Your task to perform on an android device: turn off notifications in google photos Image 0: 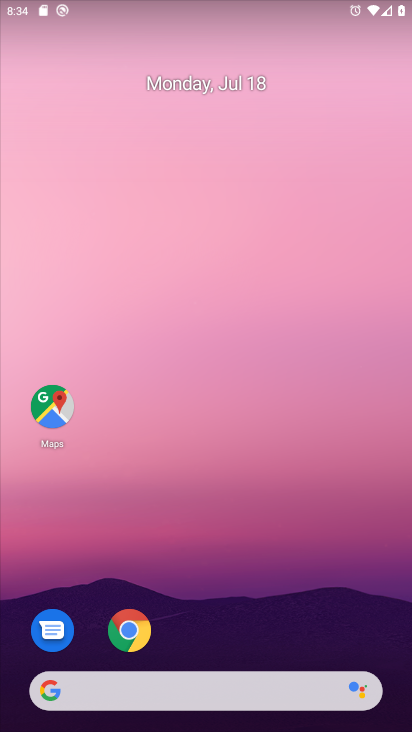
Step 0: drag from (241, 614) to (232, 92)
Your task to perform on an android device: turn off notifications in google photos Image 1: 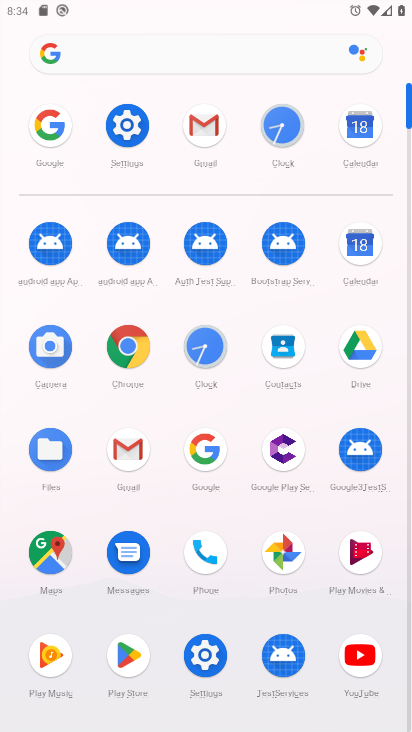
Step 1: click (280, 560)
Your task to perform on an android device: turn off notifications in google photos Image 2: 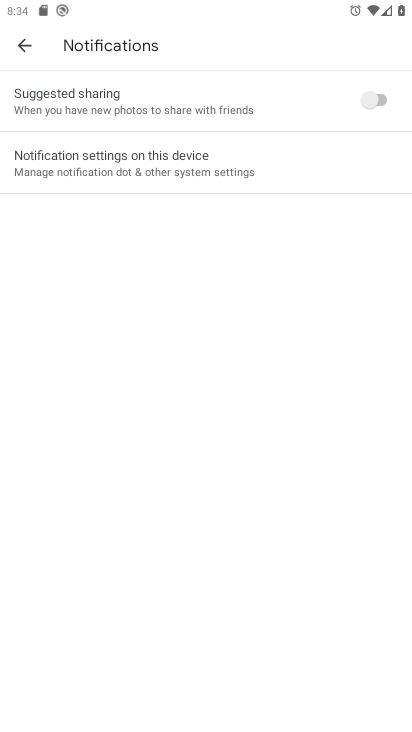
Step 2: click (32, 36)
Your task to perform on an android device: turn off notifications in google photos Image 3: 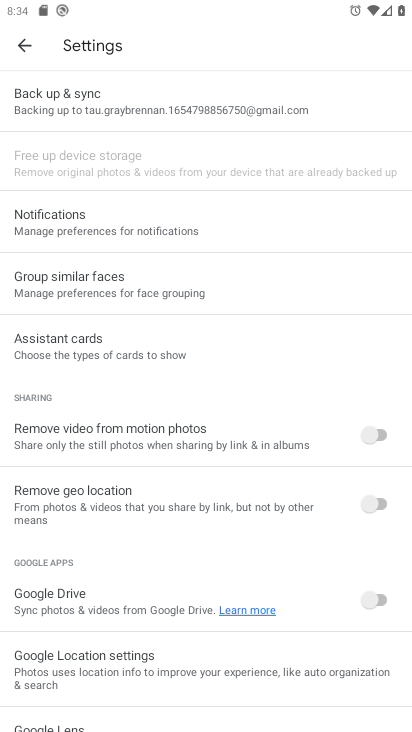
Step 3: click (127, 227)
Your task to perform on an android device: turn off notifications in google photos Image 4: 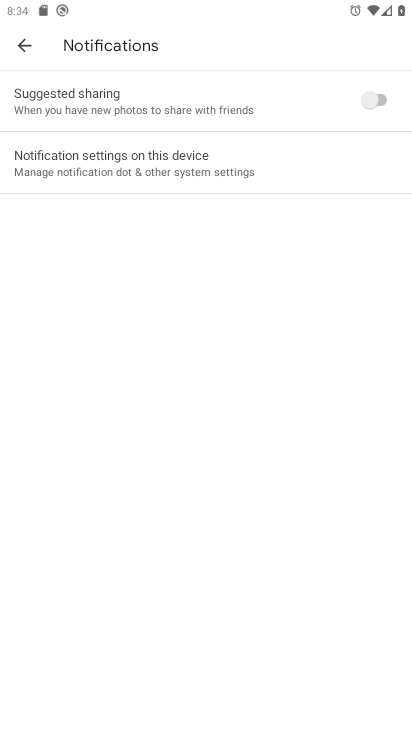
Step 4: task complete